Your task to perform on an android device: change timer sound Image 0: 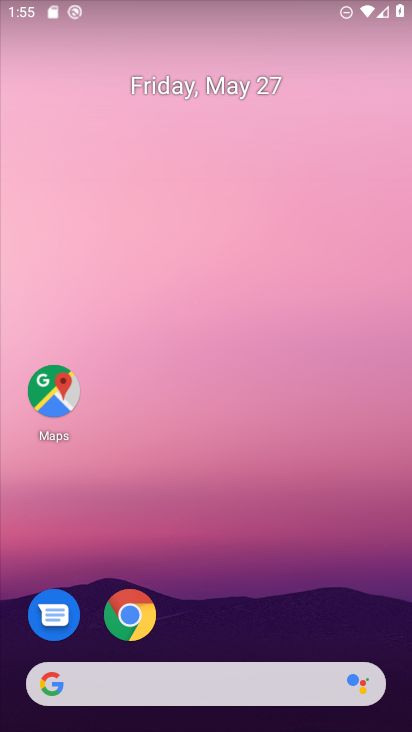
Step 0: drag from (173, 603) to (203, 198)
Your task to perform on an android device: change timer sound Image 1: 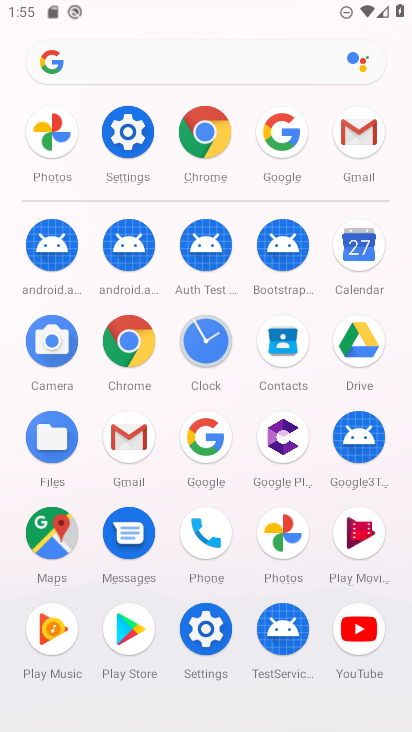
Step 1: click (219, 628)
Your task to perform on an android device: change timer sound Image 2: 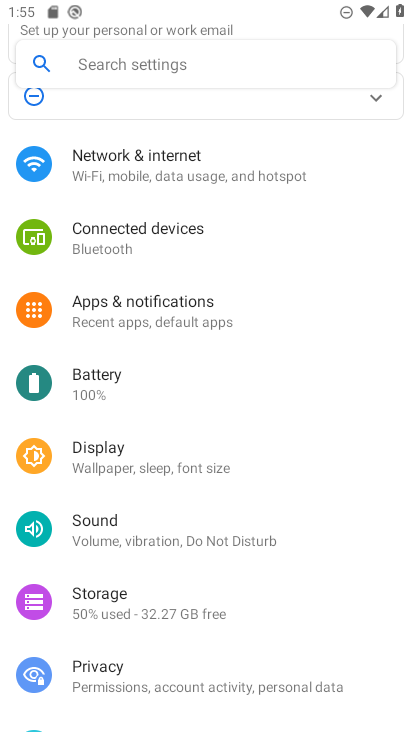
Step 2: drag from (154, 615) to (153, 366)
Your task to perform on an android device: change timer sound Image 3: 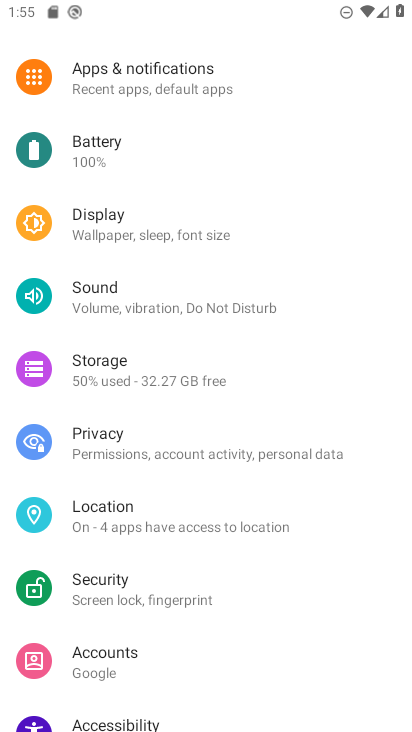
Step 3: press home button
Your task to perform on an android device: change timer sound Image 4: 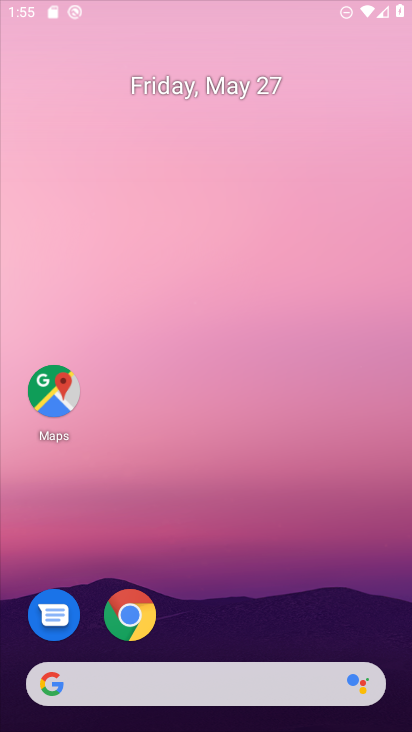
Step 4: drag from (238, 539) to (235, 153)
Your task to perform on an android device: change timer sound Image 5: 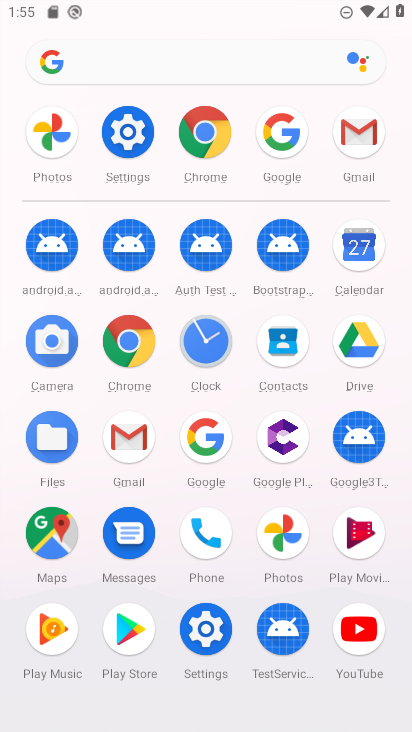
Step 5: click (200, 345)
Your task to perform on an android device: change timer sound Image 6: 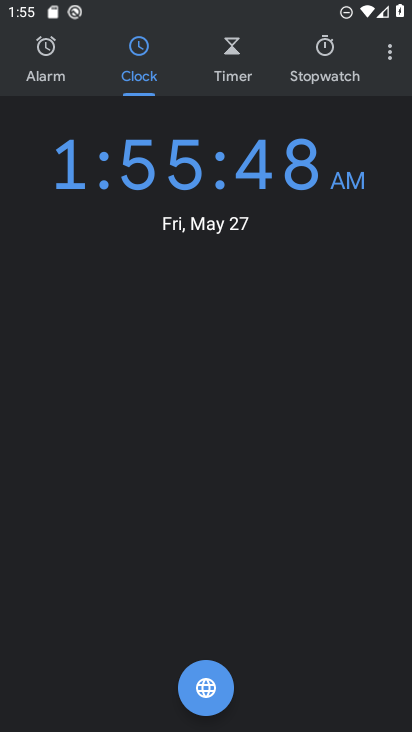
Step 6: click (399, 53)
Your task to perform on an android device: change timer sound Image 7: 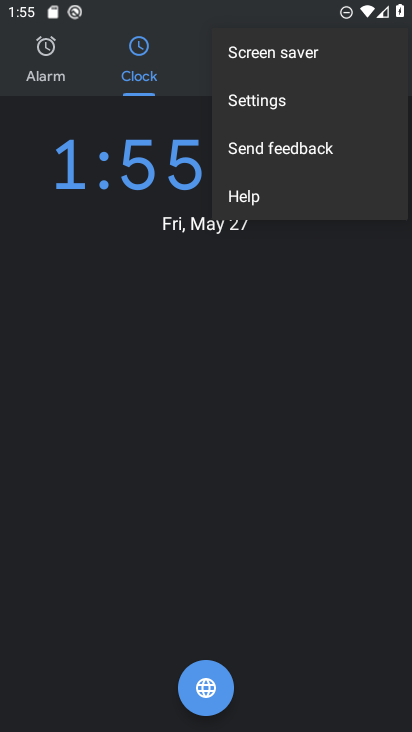
Step 7: click (272, 112)
Your task to perform on an android device: change timer sound Image 8: 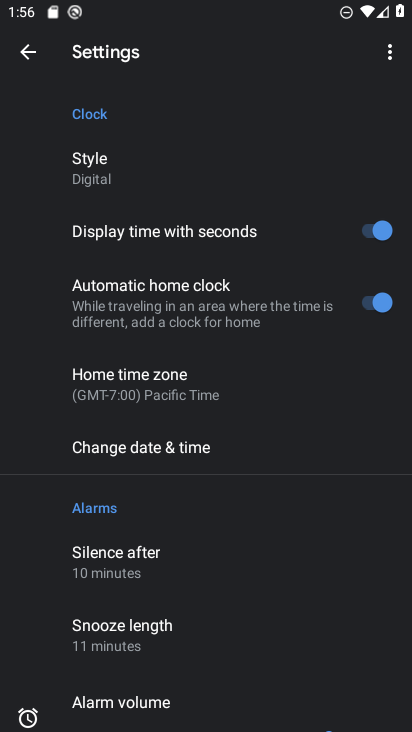
Step 8: drag from (172, 640) to (186, 355)
Your task to perform on an android device: change timer sound Image 9: 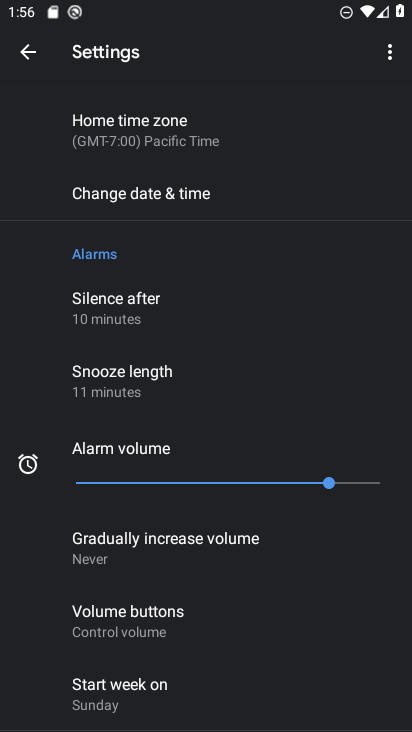
Step 9: drag from (161, 673) to (235, 301)
Your task to perform on an android device: change timer sound Image 10: 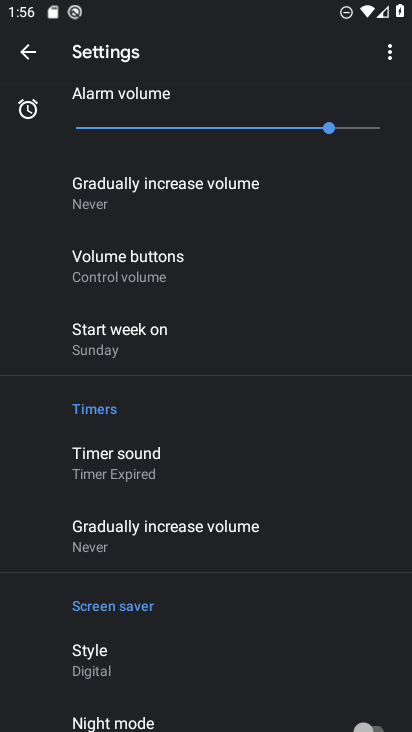
Step 10: drag from (173, 658) to (235, 268)
Your task to perform on an android device: change timer sound Image 11: 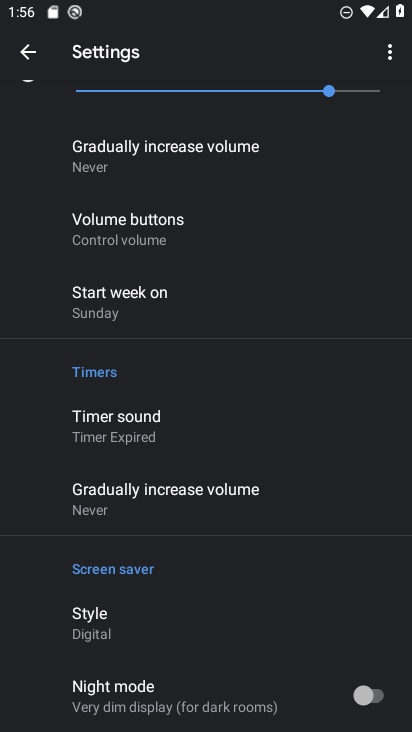
Step 11: click (136, 424)
Your task to perform on an android device: change timer sound Image 12: 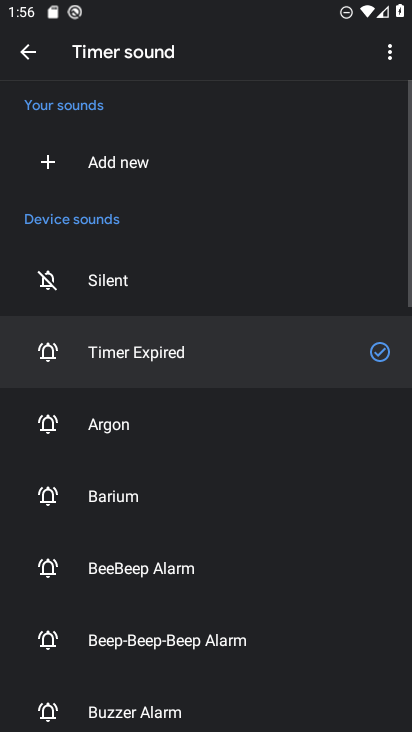
Step 12: click (141, 560)
Your task to perform on an android device: change timer sound Image 13: 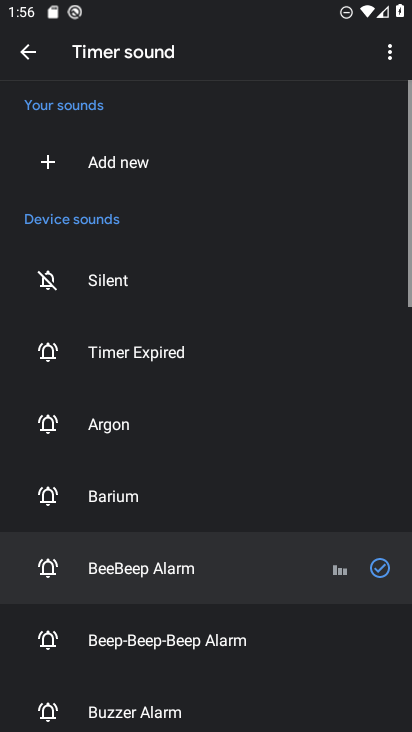
Step 13: task complete